Your task to perform on an android device: move an email to a new category in the gmail app Image 0: 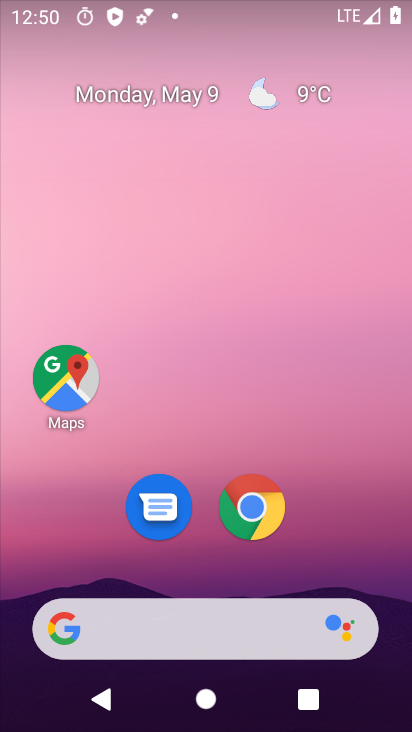
Step 0: drag from (223, 728) to (216, 130)
Your task to perform on an android device: move an email to a new category in the gmail app Image 1: 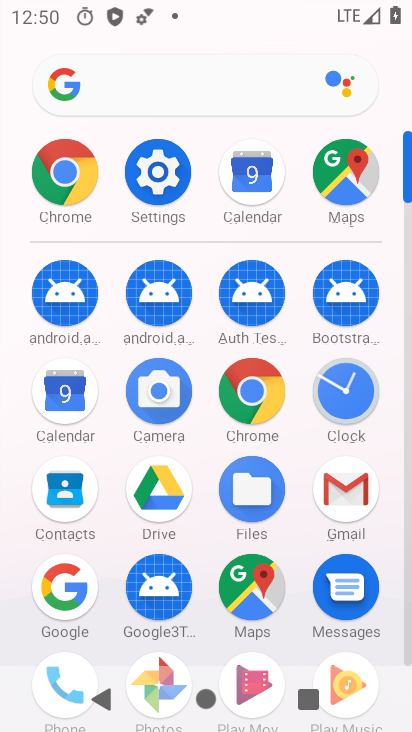
Step 1: click (353, 490)
Your task to perform on an android device: move an email to a new category in the gmail app Image 2: 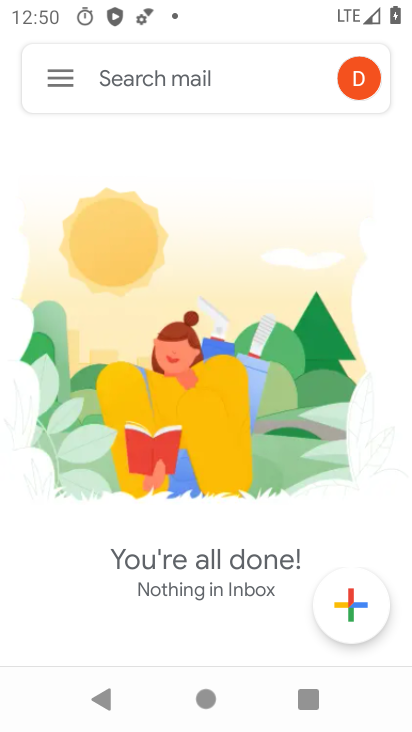
Step 2: task complete